Your task to perform on an android device: turn off data saver in the chrome app Image 0: 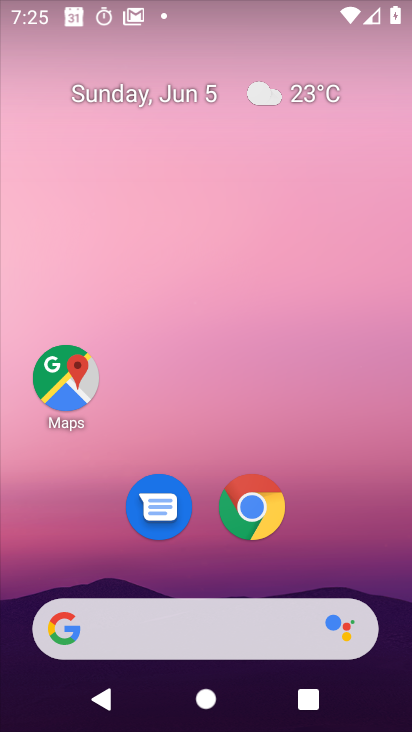
Step 0: drag from (300, 648) to (224, 207)
Your task to perform on an android device: turn off data saver in the chrome app Image 1: 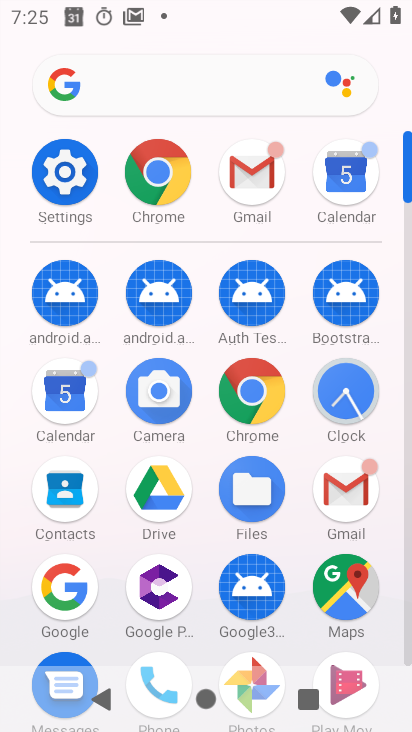
Step 1: click (146, 190)
Your task to perform on an android device: turn off data saver in the chrome app Image 2: 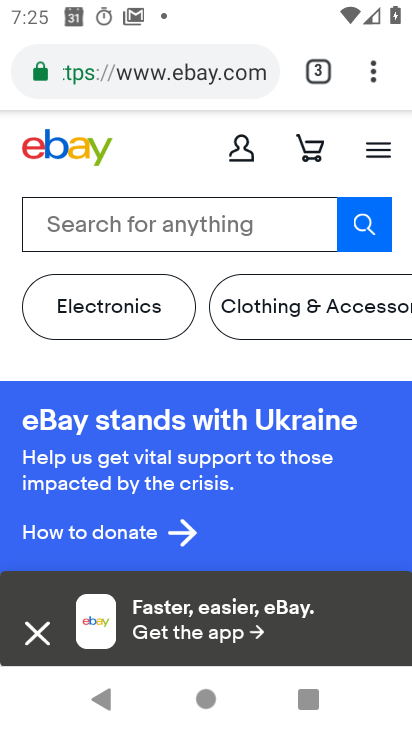
Step 2: click (361, 76)
Your task to perform on an android device: turn off data saver in the chrome app Image 3: 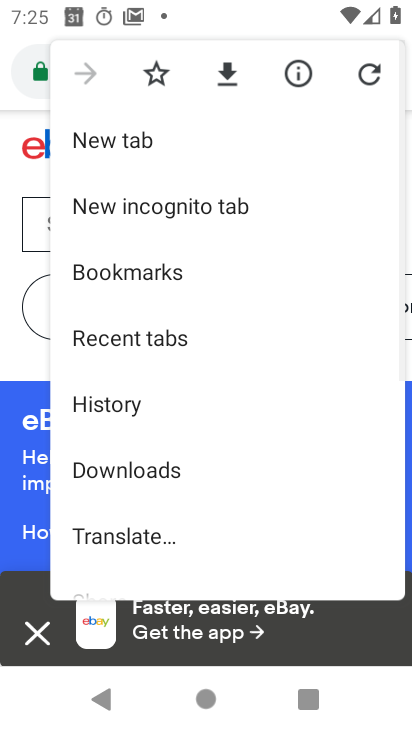
Step 3: drag from (153, 510) to (126, 201)
Your task to perform on an android device: turn off data saver in the chrome app Image 4: 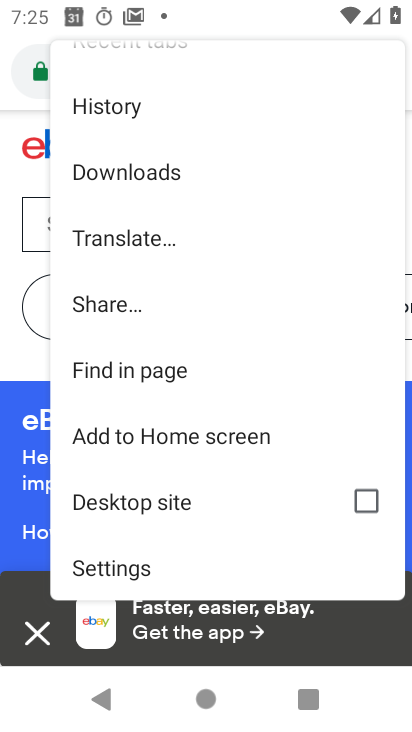
Step 4: click (166, 556)
Your task to perform on an android device: turn off data saver in the chrome app Image 5: 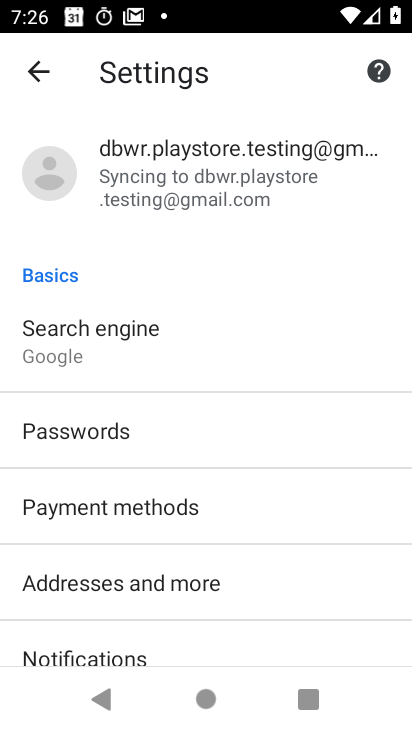
Step 5: drag from (167, 562) to (156, 291)
Your task to perform on an android device: turn off data saver in the chrome app Image 6: 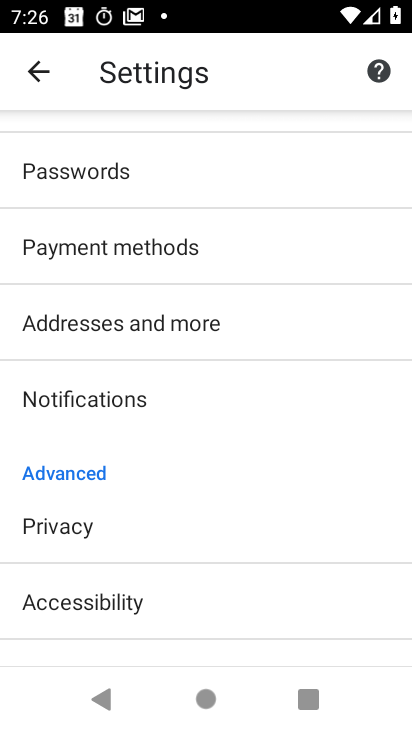
Step 6: drag from (182, 580) to (142, 320)
Your task to perform on an android device: turn off data saver in the chrome app Image 7: 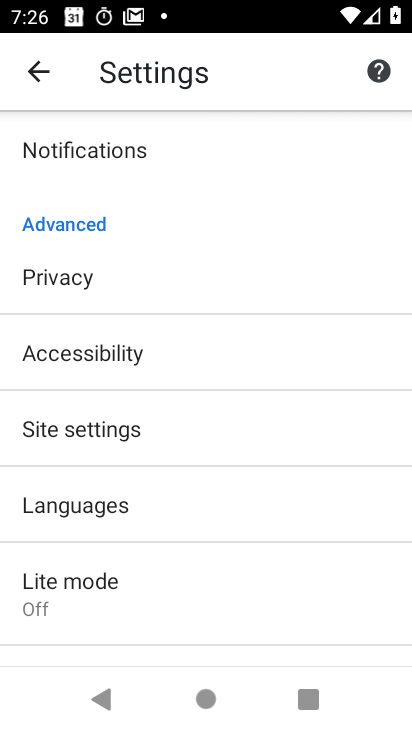
Step 7: click (112, 583)
Your task to perform on an android device: turn off data saver in the chrome app Image 8: 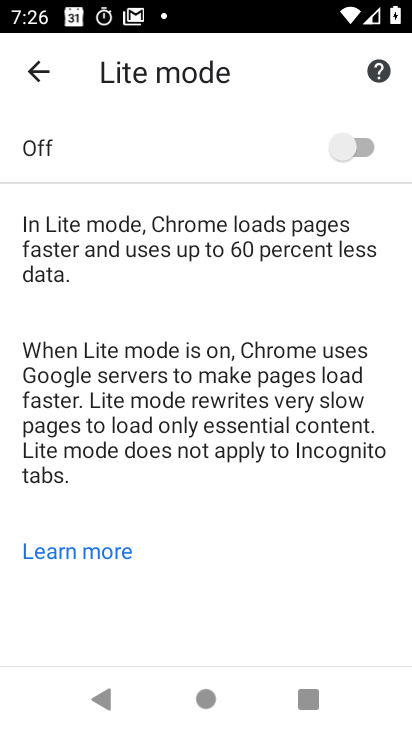
Step 8: click (351, 152)
Your task to perform on an android device: turn off data saver in the chrome app Image 9: 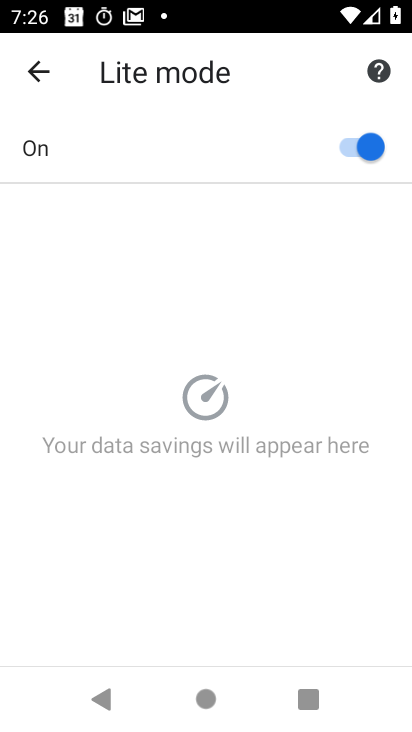
Step 9: click (348, 148)
Your task to perform on an android device: turn off data saver in the chrome app Image 10: 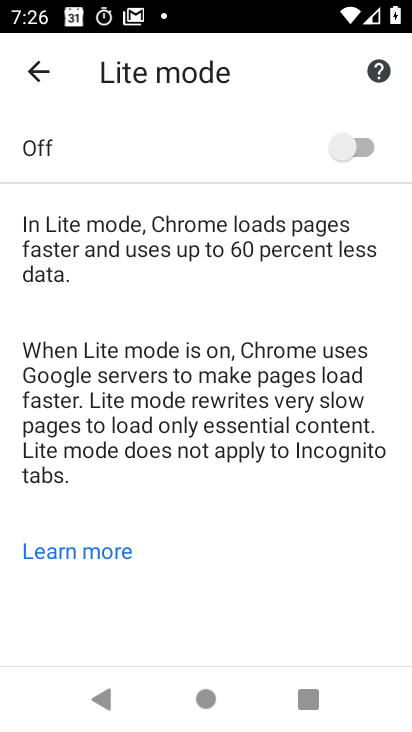
Step 10: task complete